Your task to perform on an android device: find which apps use the phone's location Image 0: 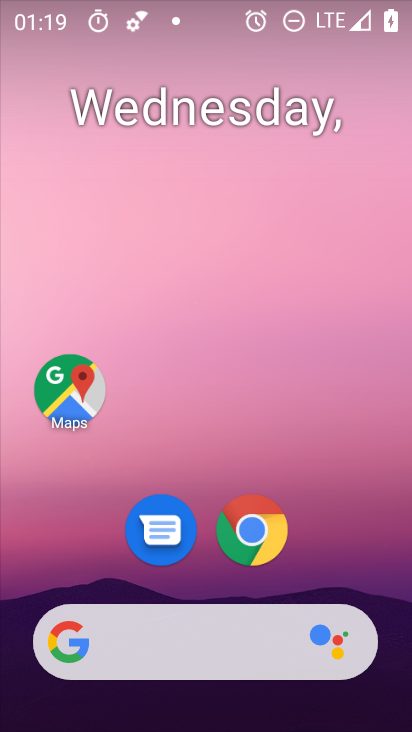
Step 0: drag from (275, 696) to (257, 123)
Your task to perform on an android device: find which apps use the phone's location Image 1: 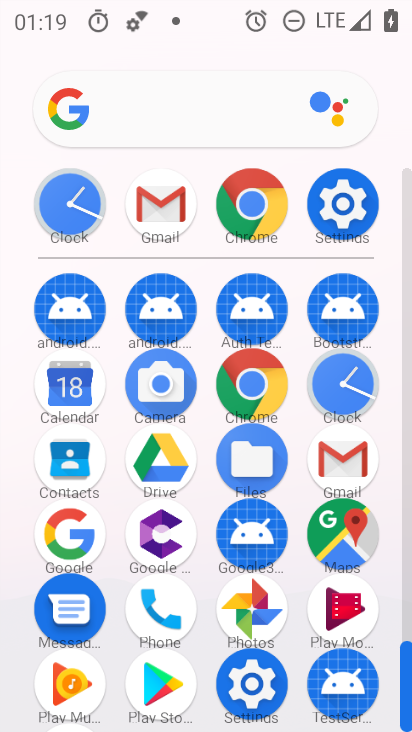
Step 1: click (351, 213)
Your task to perform on an android device: find which apps use the phone's location Image 2: 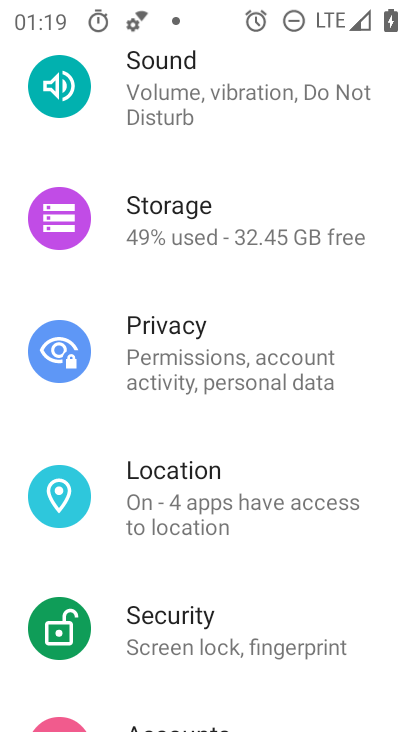
Step 2: drag from (258, 415) to (235, 674)
Your task to perform on an android device: find which apps use the phone's location Image 3: 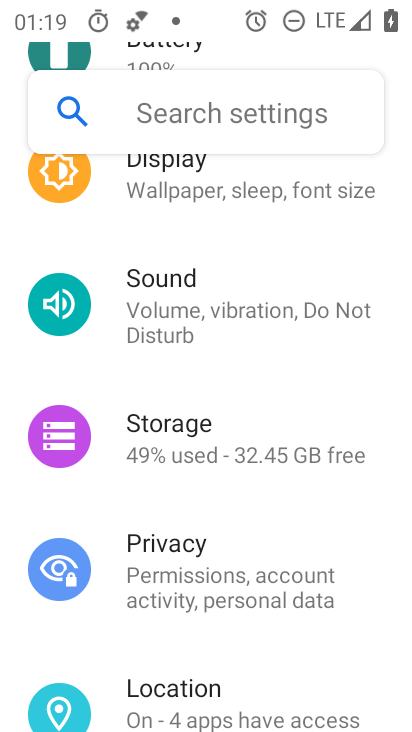
Step 3: drag from (200, 327) to (260, 706)
Your task to perform on an android device: find which apps use the phone's location Image 4: 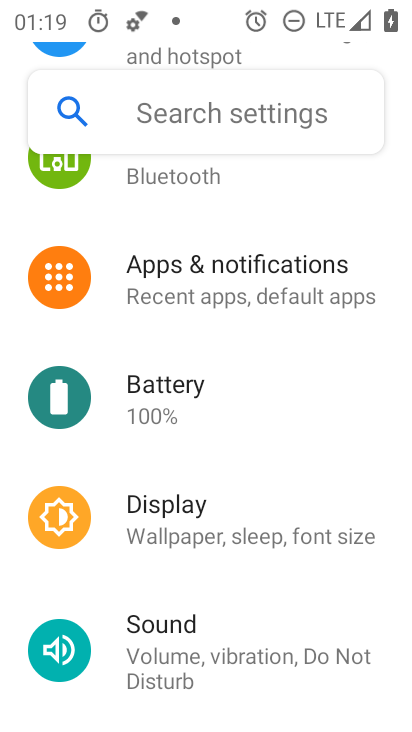
Step 4: drag from (292, 663) to (300, 262)
Your task to perform on an android device: find which apps use the phone's location Image 5: 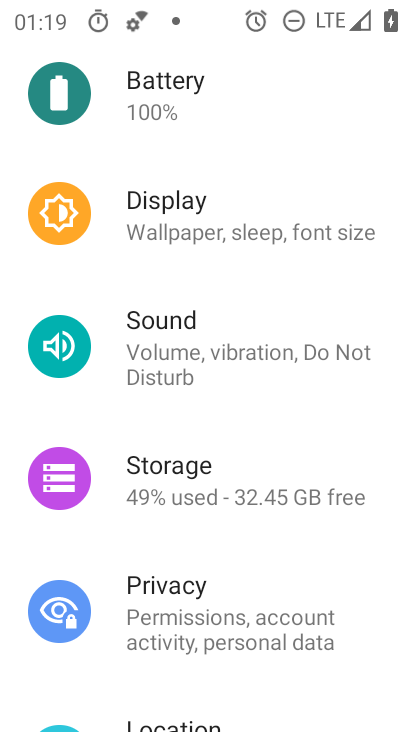
Step 5: drag from (311, 607) to (329, 332)
Your task to perform on an android device: find which apps use the phone's location Image 6: 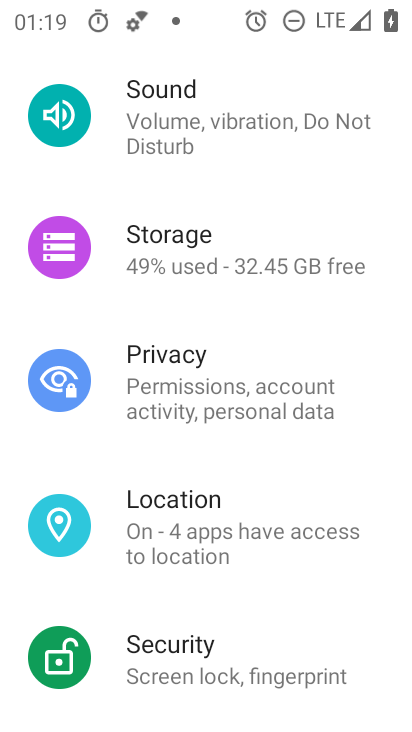
Step 6: click (293, 515)
Your task to perform on an android device: find which apps use the phone's location Image 7: 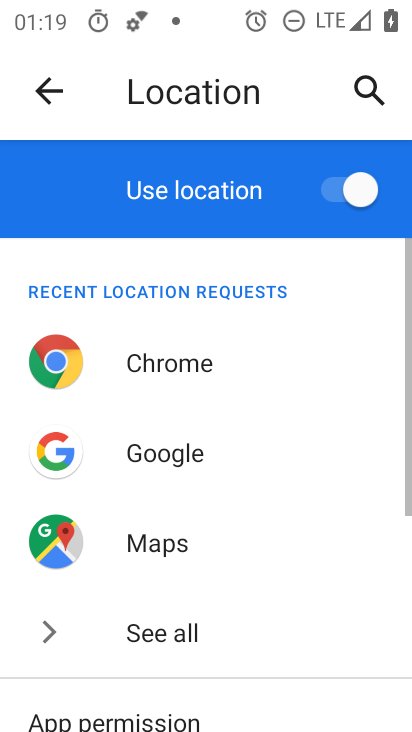
Step 7: task complete